Your task to perform on an android device: turn off location Image 0: 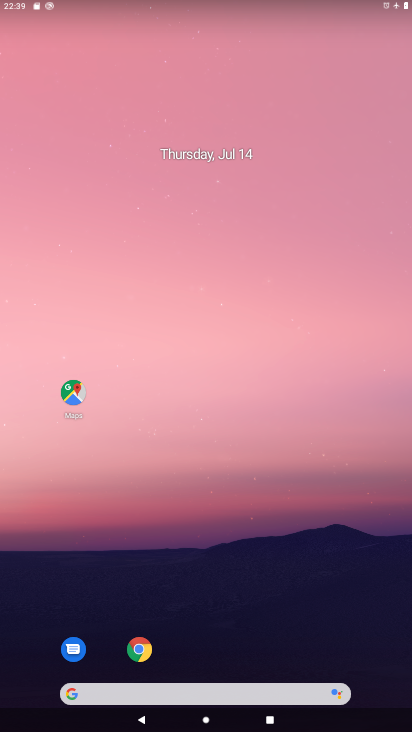
Step 0: drag from (217, 694) to (312, 0)
Your task to perform on an android device: turn off location Image 1: 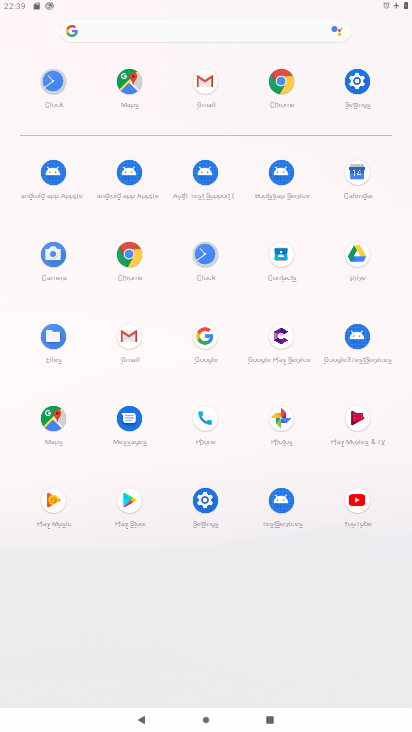
Step 1: click (371, 81)
Your task to perform on an android device: turn off location Image 2: 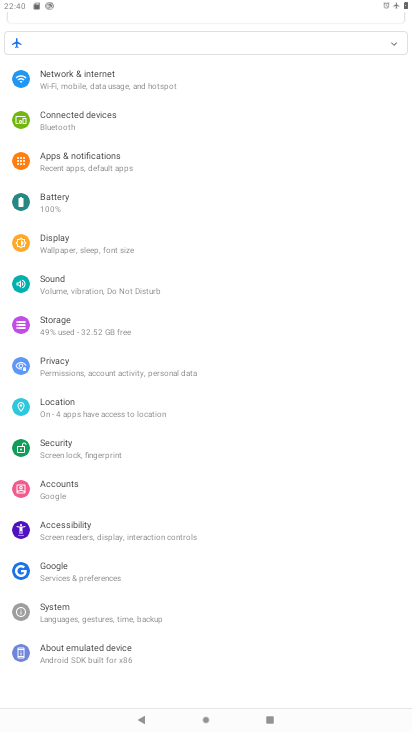
Step 2: click (80, 405)
Your task to perform on an android device: turn off location Image 3: 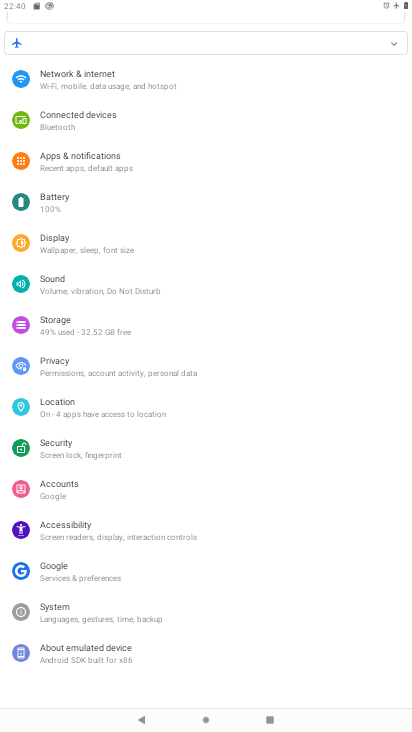
Step 3: click (75, 408)
Your task to perform on an android device: turn off location Image 4: 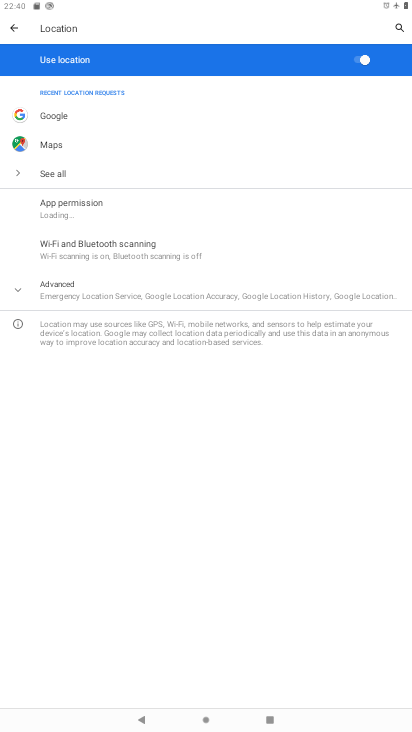
Step 4: click (361, 56)
Your task to perform on an android device: turn off location Image 5: 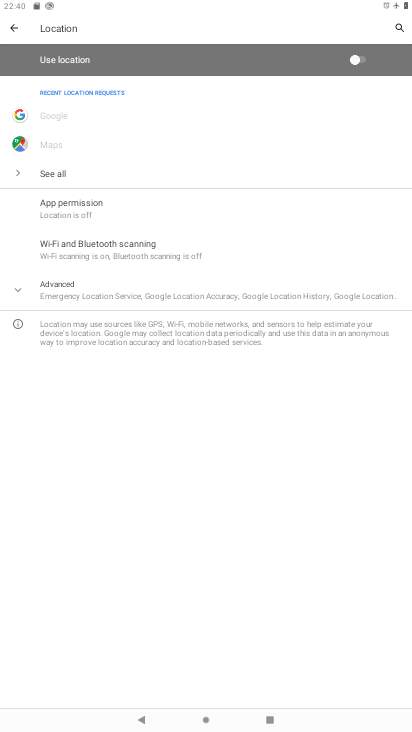
Step 5: task complete